Your task to perform on an android device: turn off airplane mode Image 0: 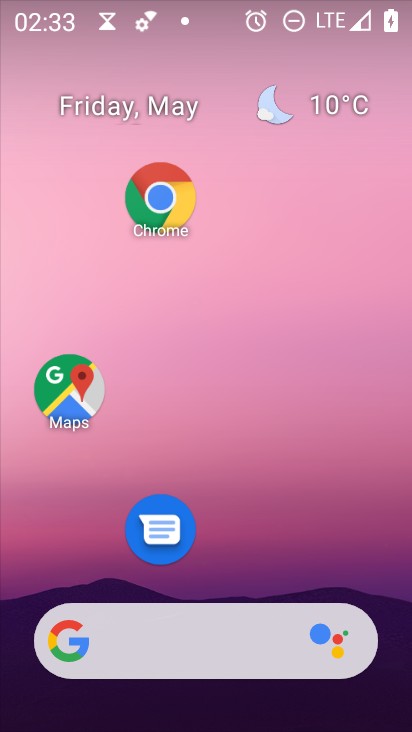
Step 0: drag from (275, 492) to (314, 156)
Your task to perform on an android device: turn off airplane mode Image 1: 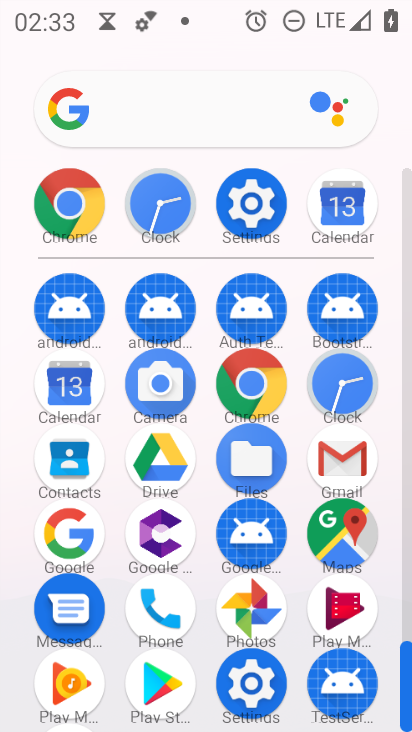
Step 1: click (251, 194)
Your task to perform on an android device: turn off airplane mode Image 2: 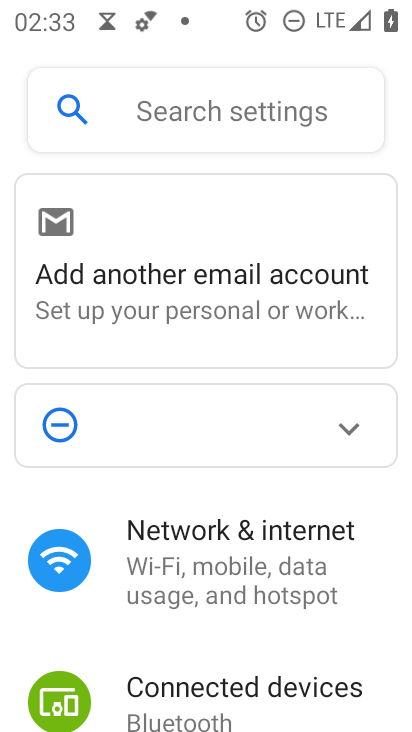
Step 2: click (217, 556)
Your task to perform on an android device: turn off airplane mode Image 3: 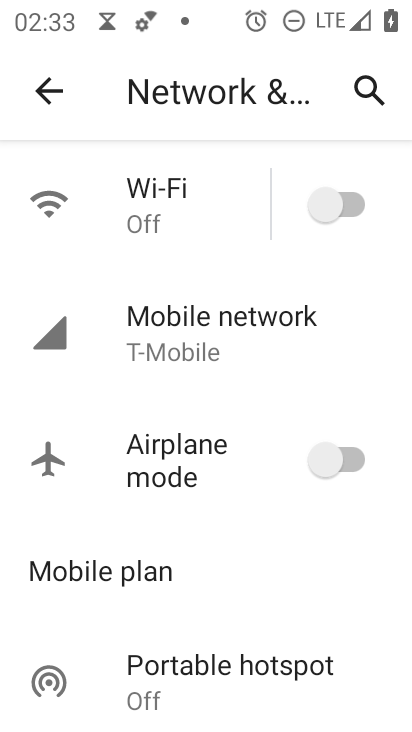
Step 3: task complete